Your task to perform on an android device: Open ESPN.com Image 0: 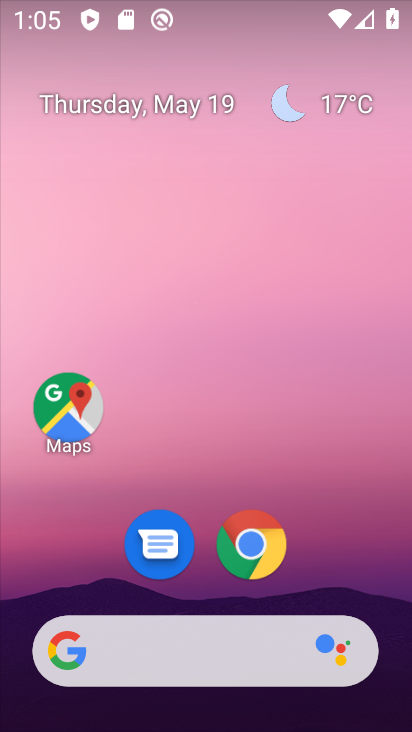
Step 0: click (260, 549)
Your task to perform on an android device: Open ESPN.com Image 1: 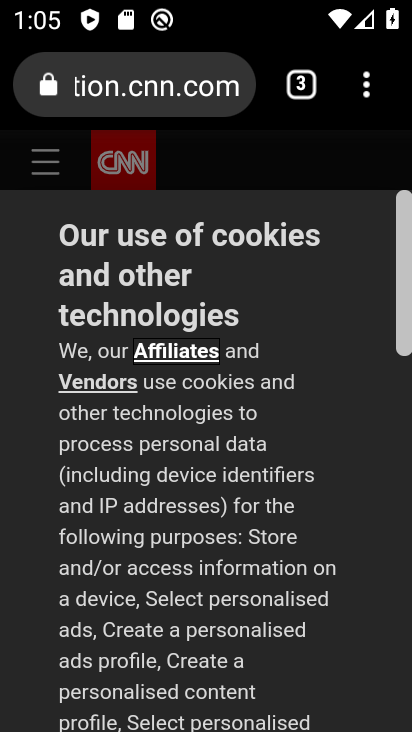
Step 1: click (362, 93)
Your task to perform on an android device: Open ESPN.com Image 2: 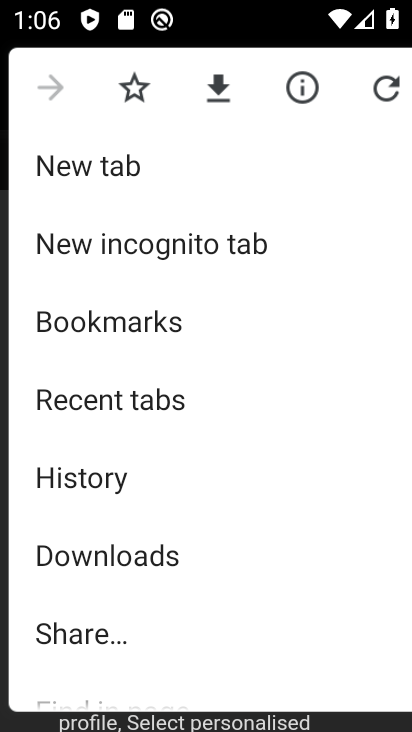
Step 2: click (98, 161)
Your task to perform on an android device: Open ESPN.com Image 3: 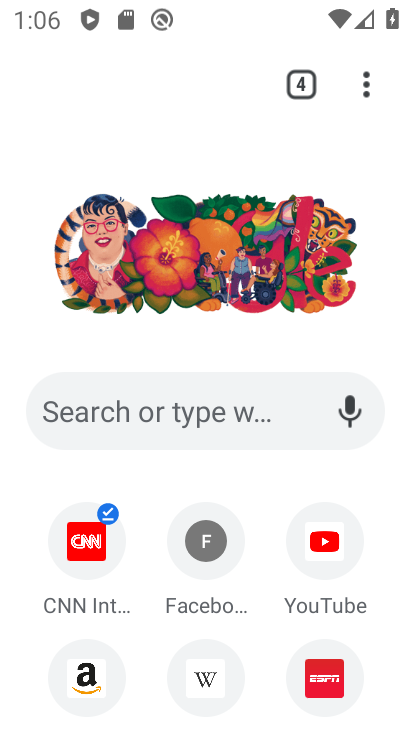
Step 3: click (224, 422)
Your task to perform on an android device: Open ESPN.com Image 4: 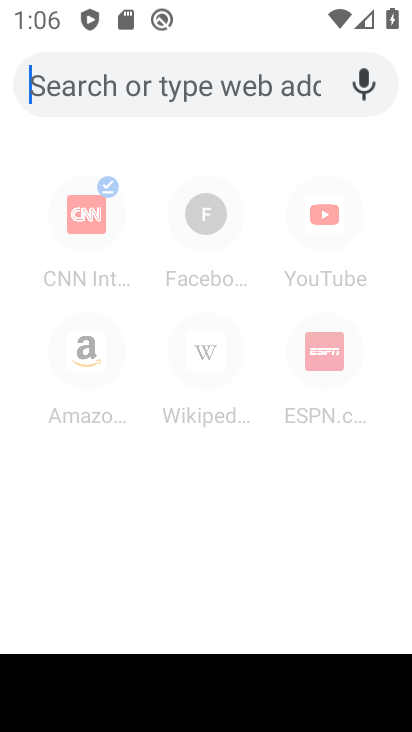
Step 4: type "ESPN.com"
Your task to perform on an android device: Open ESPN.com Image 5: 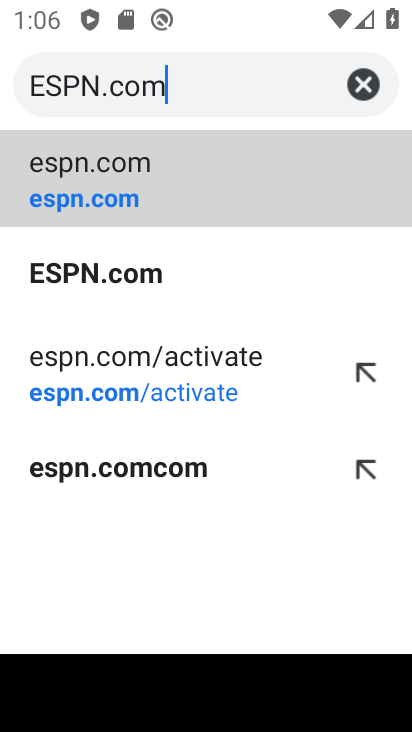
Step 5: type "C"
Your task to perform on an android device: Open ESPN.com Image 6: 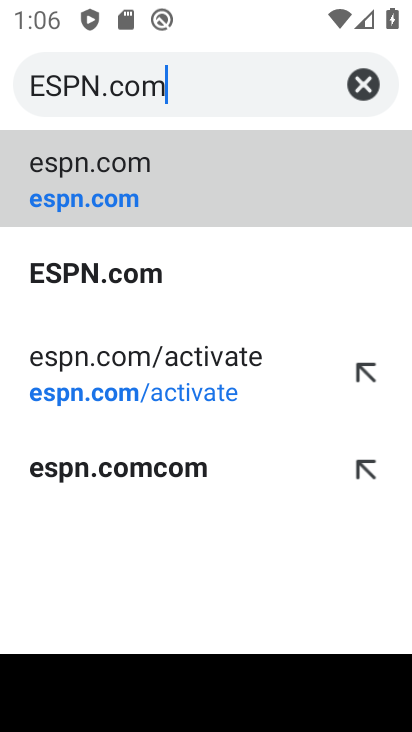
Step 6: click (119, 177)
Your task to perform on an android device: Open ESPN.com Image 7: 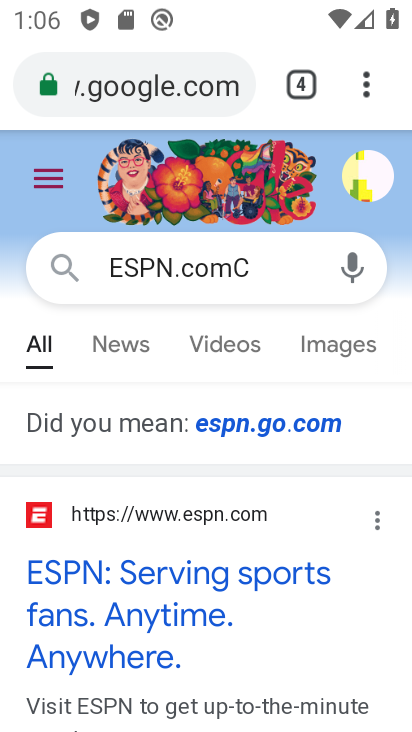
Step 7: click (201, 571)
Your task to perform on an android device: Open ESPN.com Image 8: 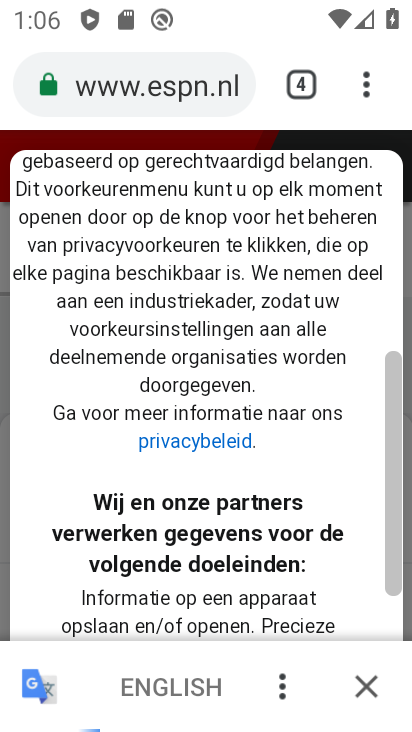
Step 8: task complete